Your task to perform on an android device: turn notification dots on Image 0: 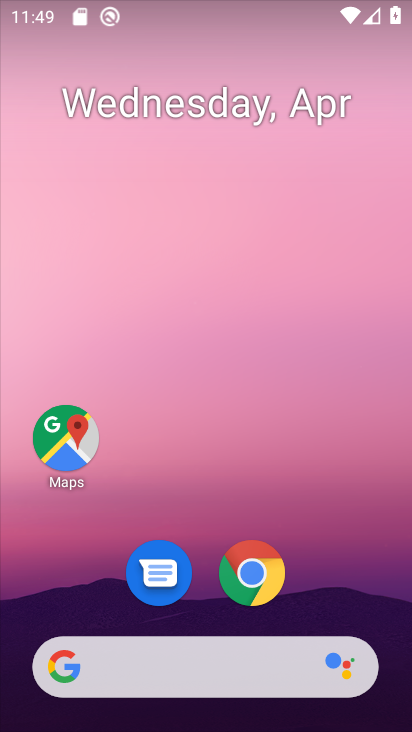
Step 0: drag from (366, 571) to (306, 141)
Your task to perform on an android device: turn notification dots on Image 1: 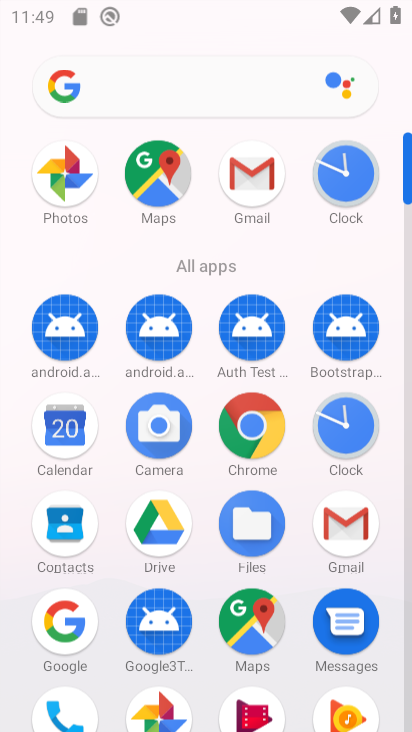
Step 1: drag from (365, 579) to (3, 222)
Your task to perform on an android device: turn notification dots on Image 2: 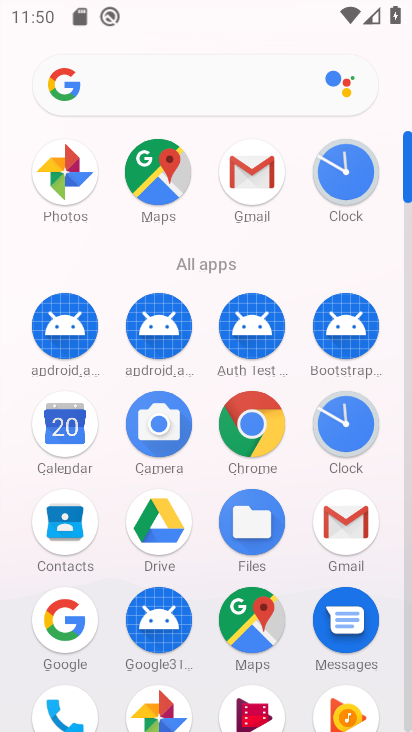
Step 2: click (407, 531)
Your task to perform on an android device: turn notification dots on Image 3: 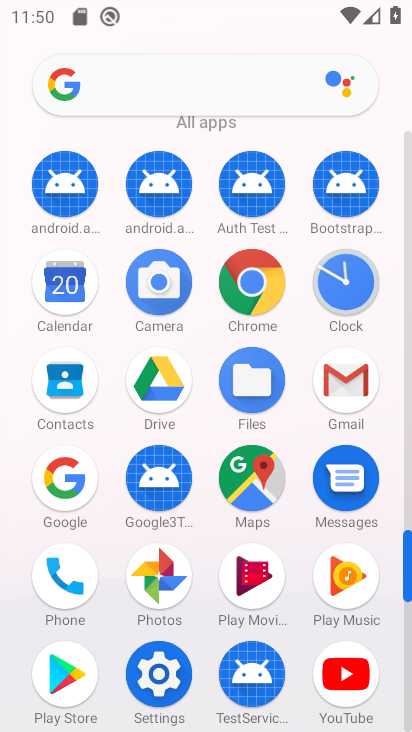
Step 3: drag from (407, 531) to (407, 711)
Your task to perform on an android device: turn notification dots on Image 4: 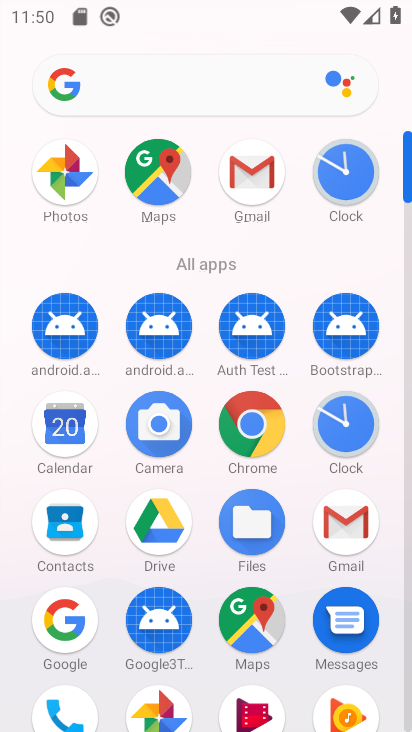
Step 4: click (402, 712)
Your task to perform on an android device: turn notification dots on Image 5: 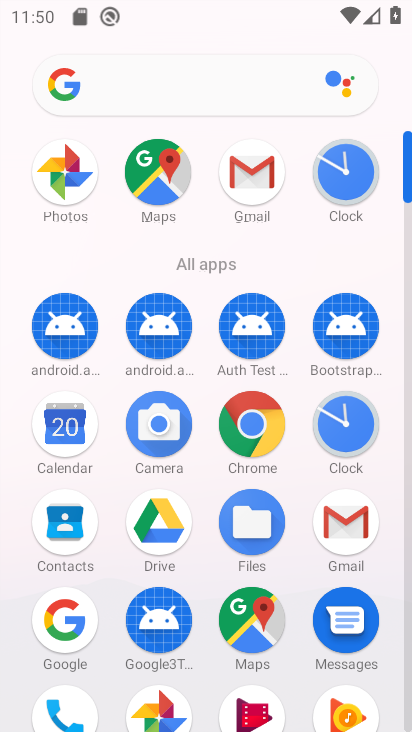
Step 5: click (406, 712)
Your task to perform on an android device: turn notification dots on Image 6: 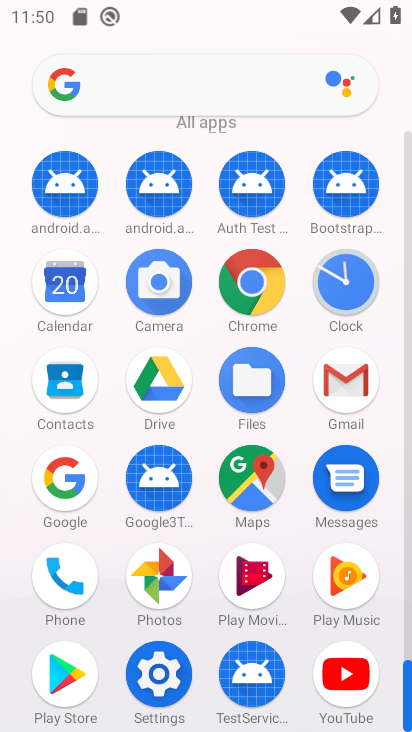
Step 6: click (179, 676)
Your task to perform on an android device: turn notification dots on Image 7: 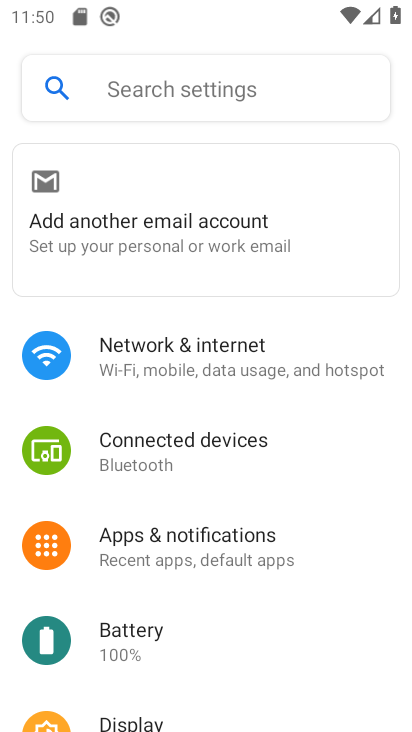
Step 7: click (184, 548)
Your task to perform on an android device: turn notification dots on Image 8: 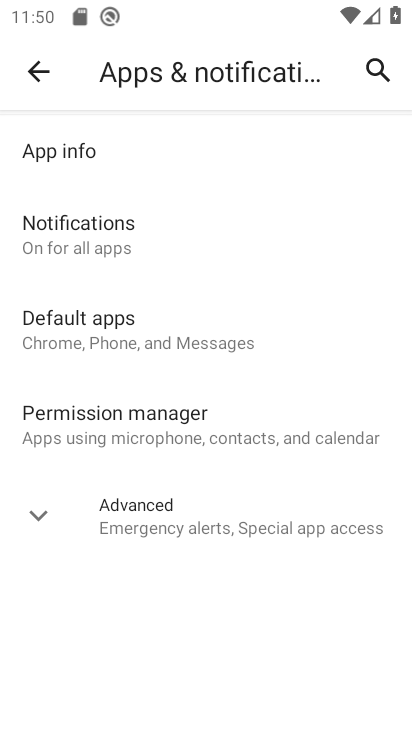
Step 8: drag from (135, 545) to (156, 347)
Your task to perform on an android device: turn notification dots on Image 9: 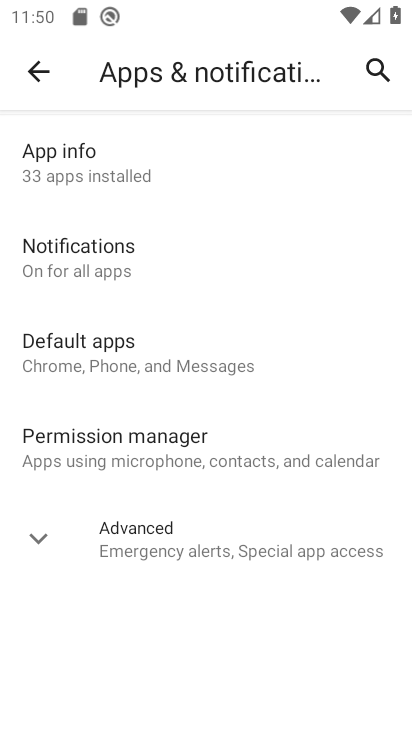
Step 9: click (168, 273)
Your task to perform on an android device: turn notification dots on Image 10: 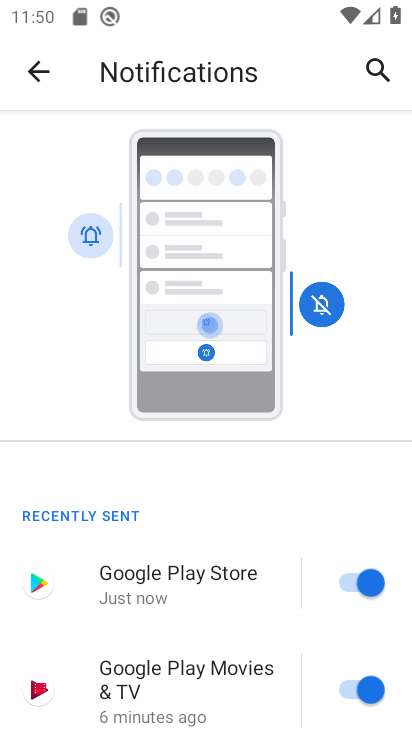
Step 10: drag from (209, 529) to (225, 44)
Your task to perform on an android device: turn notification dots on Image 11: 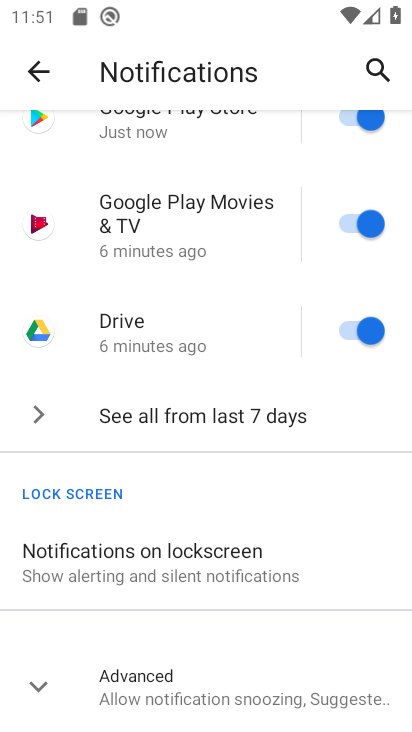
Step 11: click (160, 704)
Your task to perform on an android device: turn notification dots on Image 12: 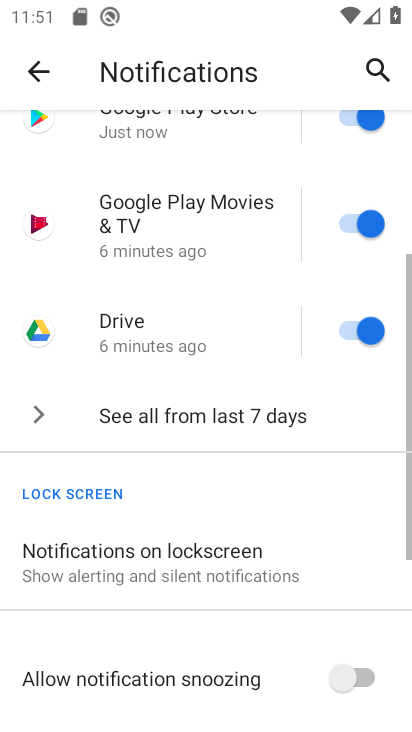
Step 12: drag from (160, 704) to (177, 156)
Your task to perform on an android device: turn notification dots on Image 13: 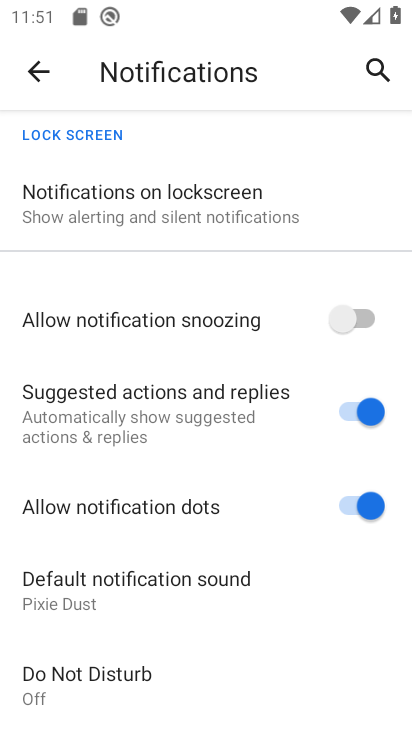
Step 13: click (160, 517)
Your task to perform on an android device: turn notification dots on Image 14: 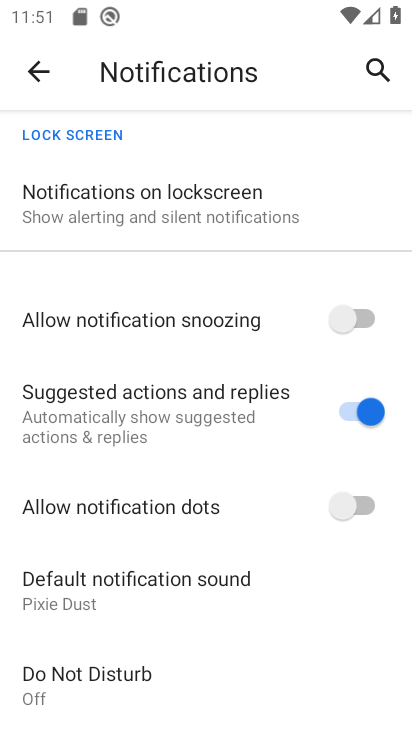
Step 14: click (355, 503)
Your task to perform on an android device: turn notification dots on Image 15: 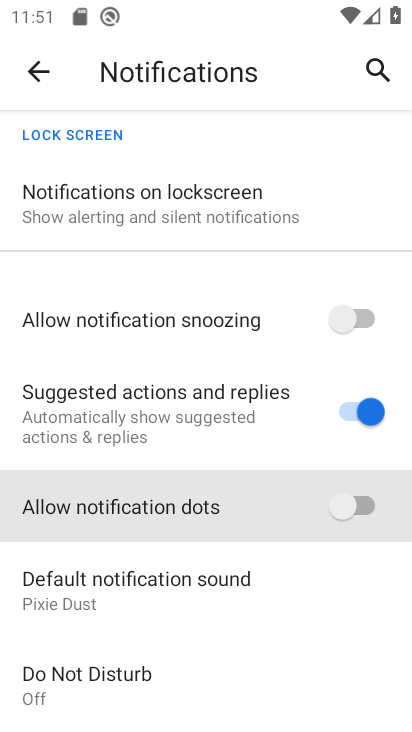
Step 15: task complete